Your task to perform on an android device: Search for seafood restaurants on Google Maps Image 0: 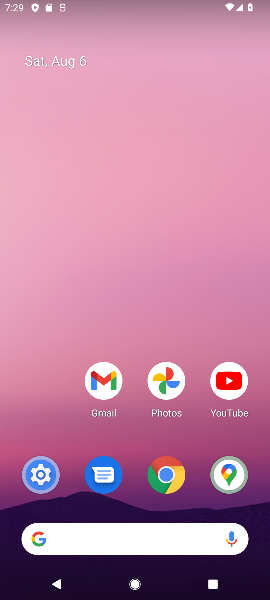
Step 0: click (226, 475)
Your task to perform on an android device: Search for seafood restaurants on Google Maps Image 1: 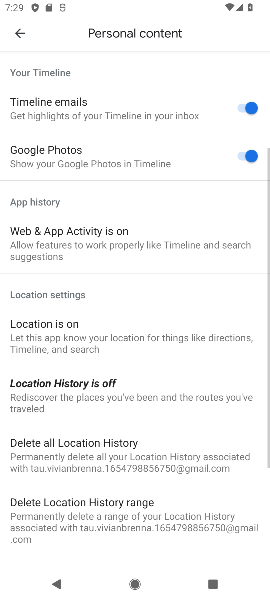
Step 1: click (19, 31)
Your task to perform on an android device: Search for seafood restaurants on Google Maps Image 2: 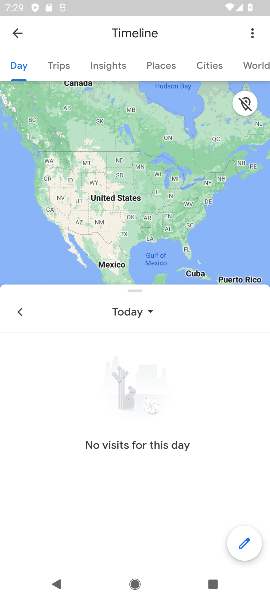
Step 2: click (18, 36)
Your task to perform on an android device: Search for seafood restaurants on Google Maps Image 3: 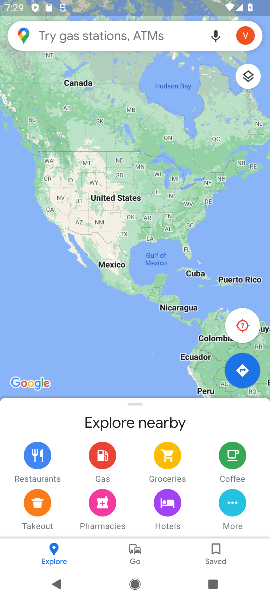
Step 3: click (55, 43)
Your task to perform on an android device: Search for seafood restaurants on Google Maps Image 4: 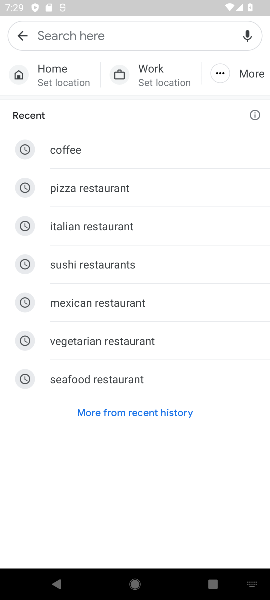
Step 4: type "seafood restaurants"
Your task to perform on an android device: Search for seafood restaurants on Google Maps Image 5: 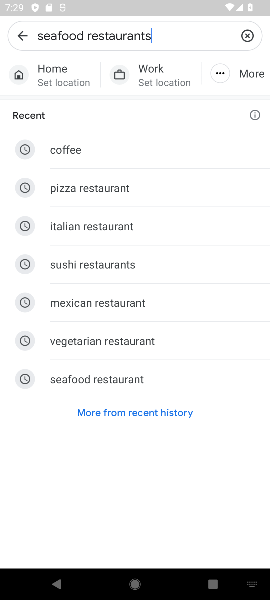
Step 5: type ""
Your task to perform on an android device: Search for seafood restaurants on Google Maps Image 6: 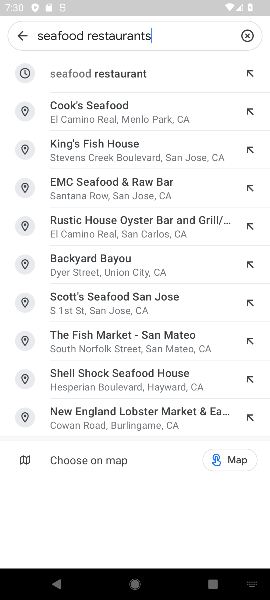
Step 6: press home button
Your task to perform on an android device: Search for seafood restaurants on Google Maps Image 7: 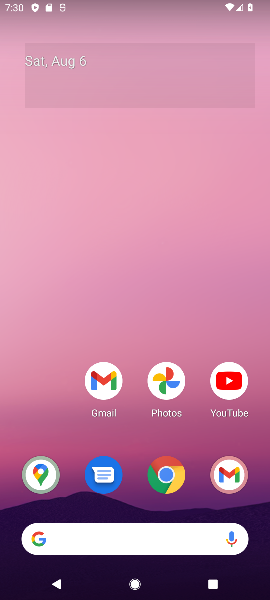
Step 7: click (42, 481)
Your task to perform on an android device: Search for seafood restaurants on Google Maps Image 8: 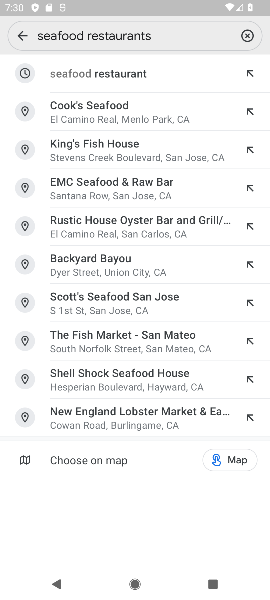
Step 8: click (111, 79)
Your task to perform on an android device: Search for seafood restaurants on Google Maps Image 9: 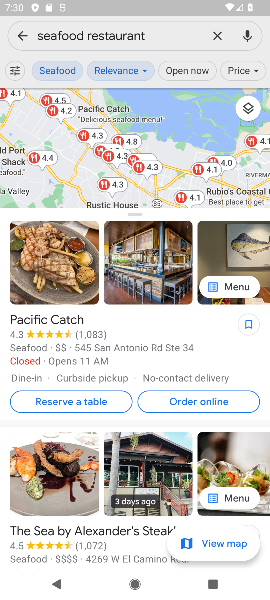
Step 9: task complete